Your task to perform on an android device: turn on javascript in the chrome app Image 0: 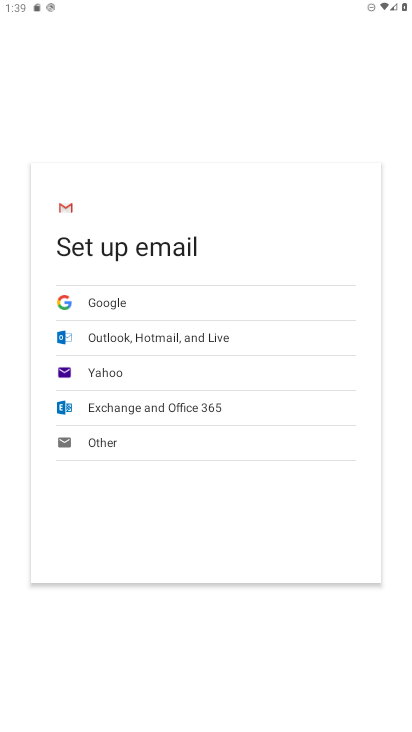
Step 0: task impossible